Your task to perform on an android device: allow notifications from all sites in the chrome app Image 0: 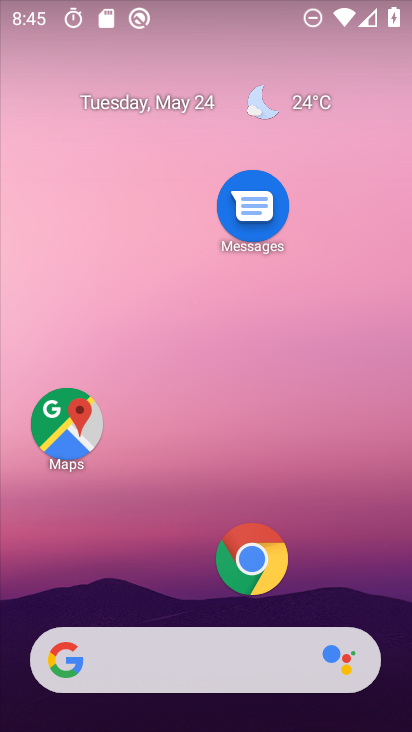
Step 0: click (227, 556)
Your task to perform on an android device: allow notifications from all sites in the chrome app Image 1: 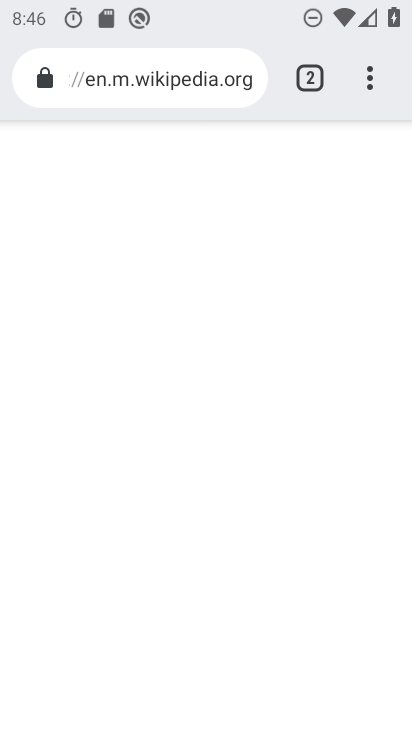
Step 1: drag from (364, 75) to (97, 628)
Your task to perform on an android device: allow notifications from all sites in the chrome app Image 2: 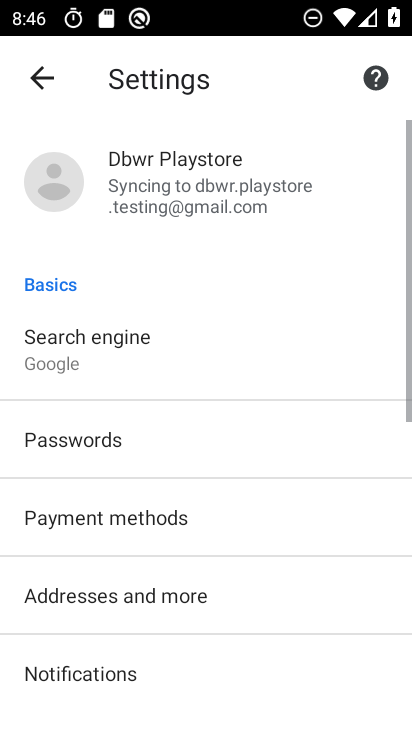
Step 2: drag from (97, 628) to (175, 236)
Your task to perform on an android device: allow notifications from all sites in the chrome app Image 3: 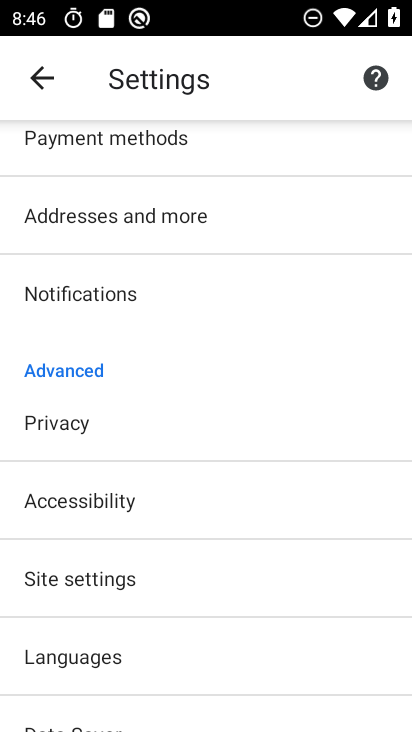
Step 3: click (116, 589)
Your task to perform on an android device: allow notifications from all sites in the chrome app Image 4: 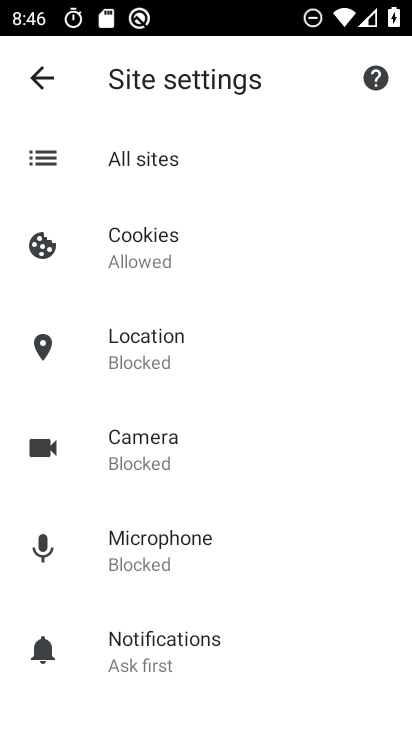
Step 4: click (148, 165)
Your task to perform on an android device: allow notifications from all sites in the chrome app Image 5: 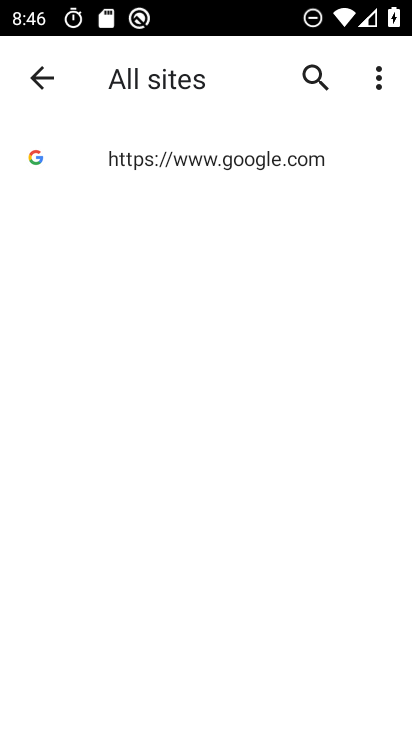
Step 5: click (148, 165)
Your task to perform on an android device: allow notifications from all sites in the chrome app Image 6: 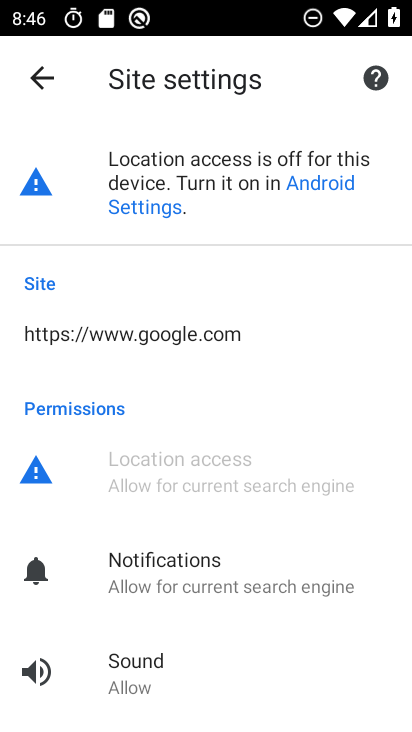
Step 6: click (209, 568)
Your task to perform on an android device: allow notifications from all sites in the chrome app Image 7: 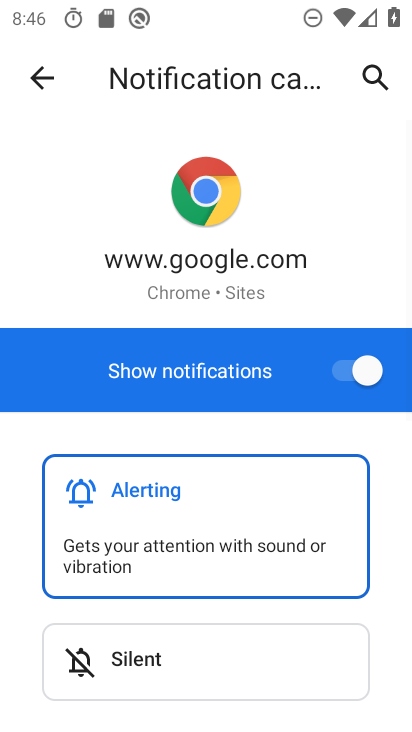
Step 7: task complete